Your task to perform on an android device: Open privacy settings Image 0: 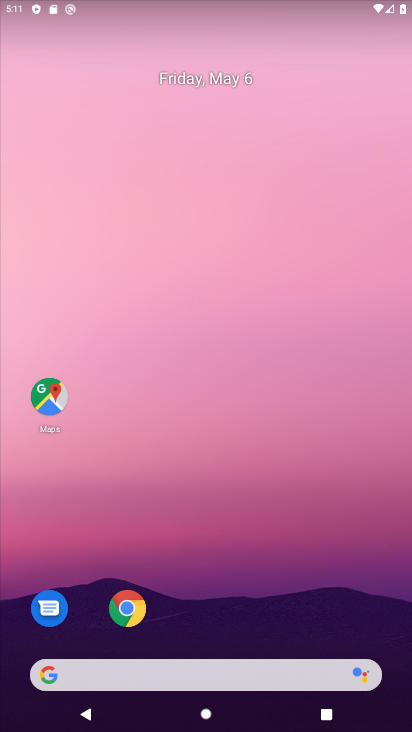
Step 0: drag from (364, 586) to (399, 50)
Your task to perform on an android device: Open privacy settings Image 1: 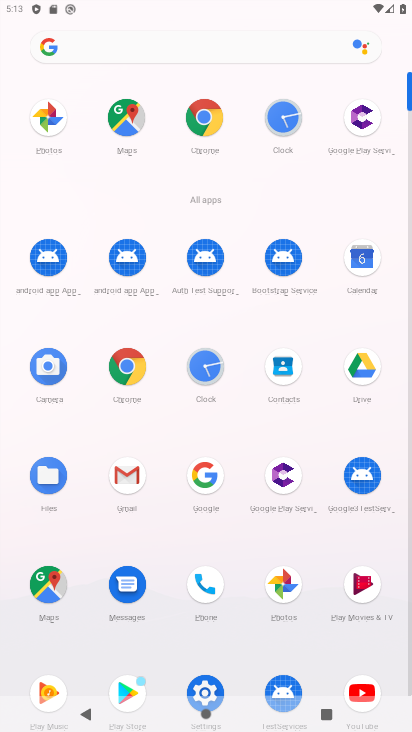
Step 1: click (200, 688)
Your task to perform on an android device: Open privacy settings Image 2: 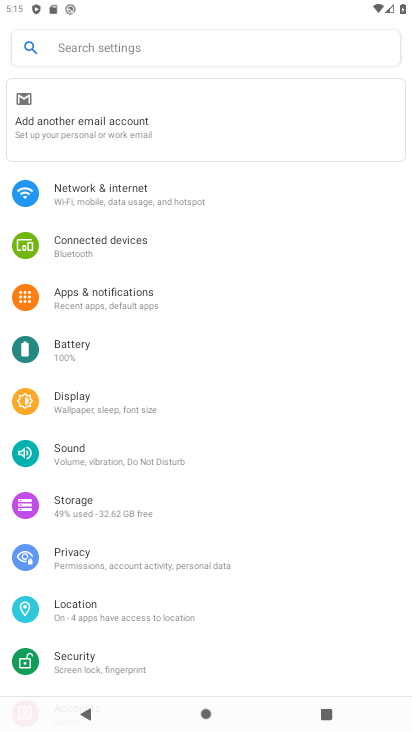
Step 2: click (102, 557)
Your task to perform on an android device: Open privacy settings Image 3: 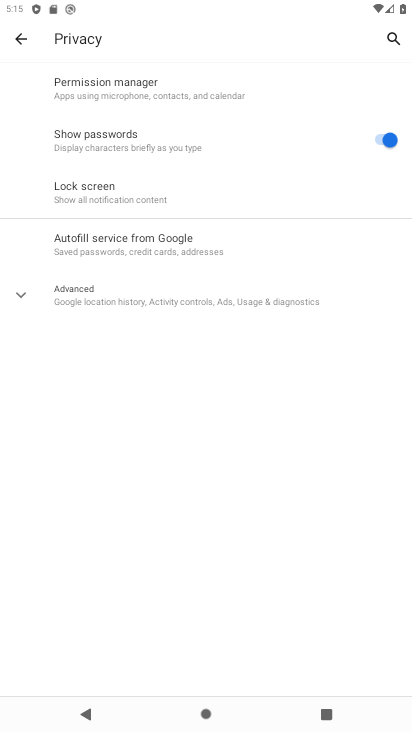
Step 3: task complete